Your task to perform on an android device: Open network settings Image 0: 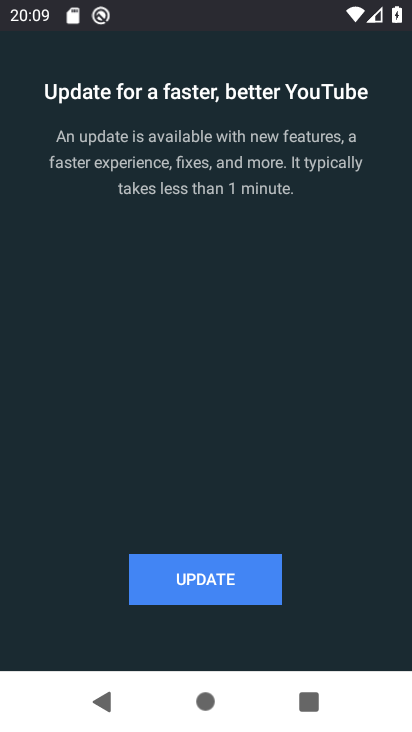
Step 0: press home button
Your task to perform on an android device: Open network settings Image 1: 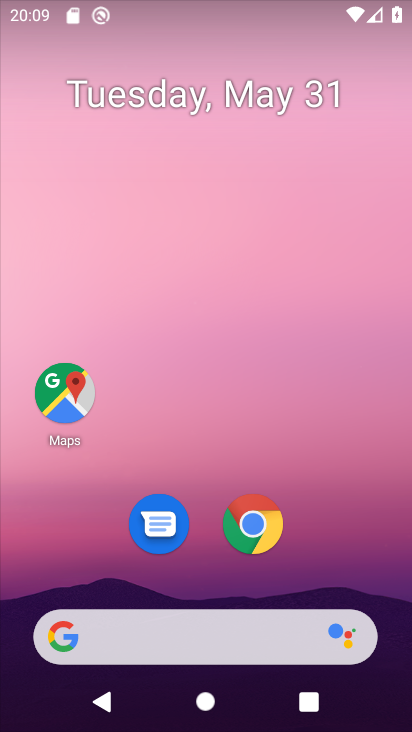
Step 1: drag from (305, 522) to (311, 18)
Your task to perform on an android device: Open network settings Image 2: 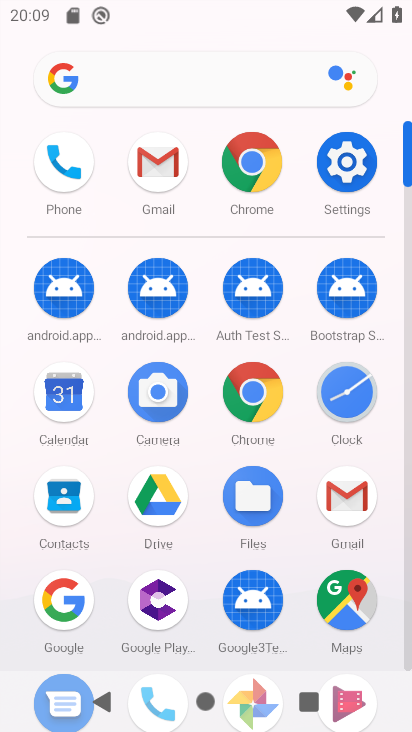
Step 2: click (357, 153)
Your task to perform on an android device: Open network settings Image 3: 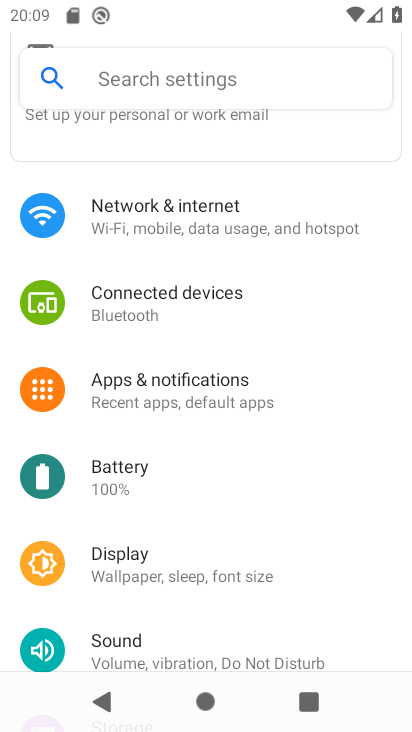
Step 3: click (272, 222)
Your task to perform on an android device: Open network settings Image 4: 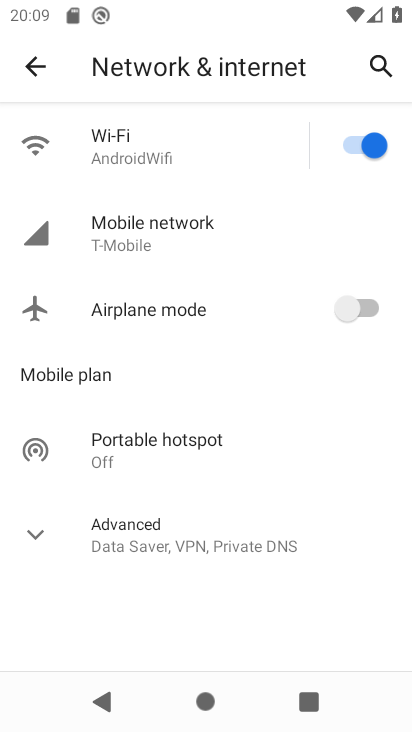
Step 4: task complete